Your task to perform on an android device: Show the shopping cart on newegg.com. Search for "razer thresher" on newegg.com, select the first entry, and add it to the cart. Image 0: 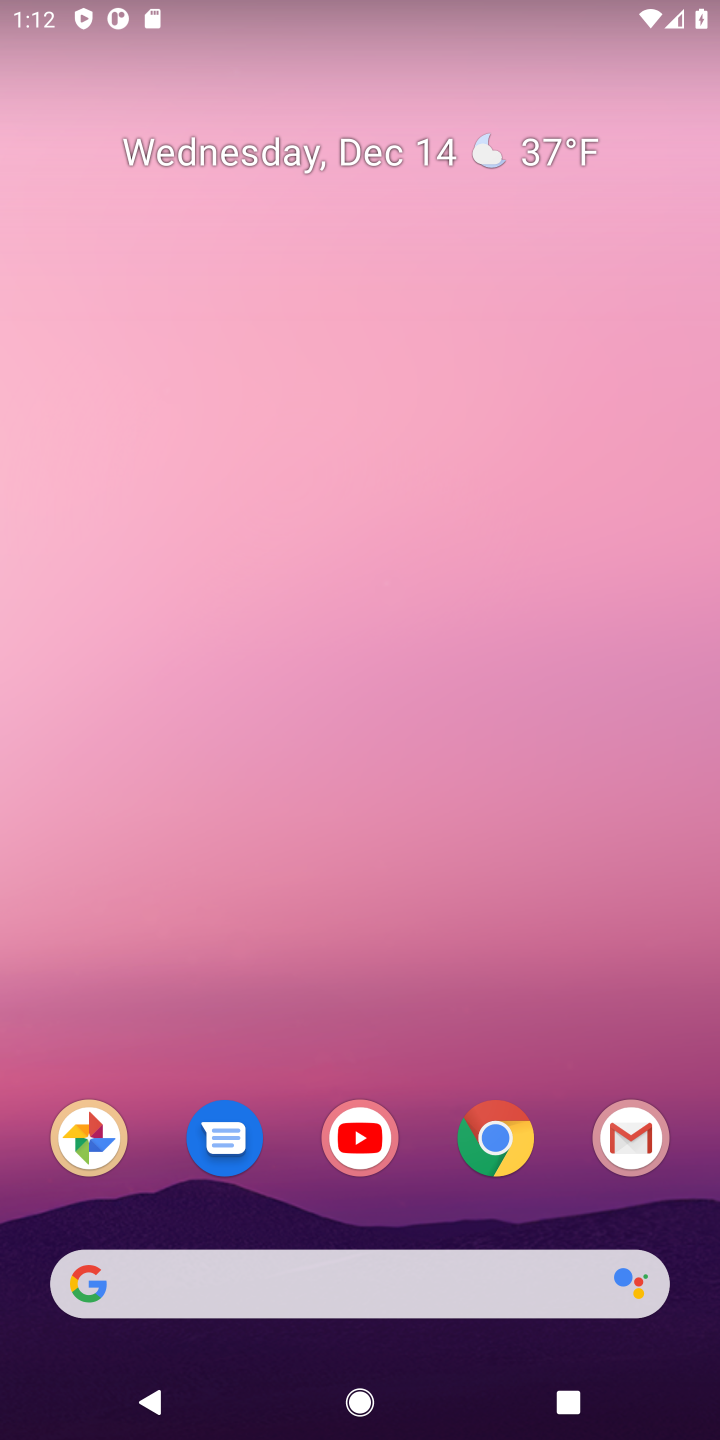
Step 0: click (484, 1125)
Your task to perform on an android device: Show the shopping cart on newegg.com. Search for "razer thresher" on newegg.com, select the first entry, and add it to the cart. Image 1: 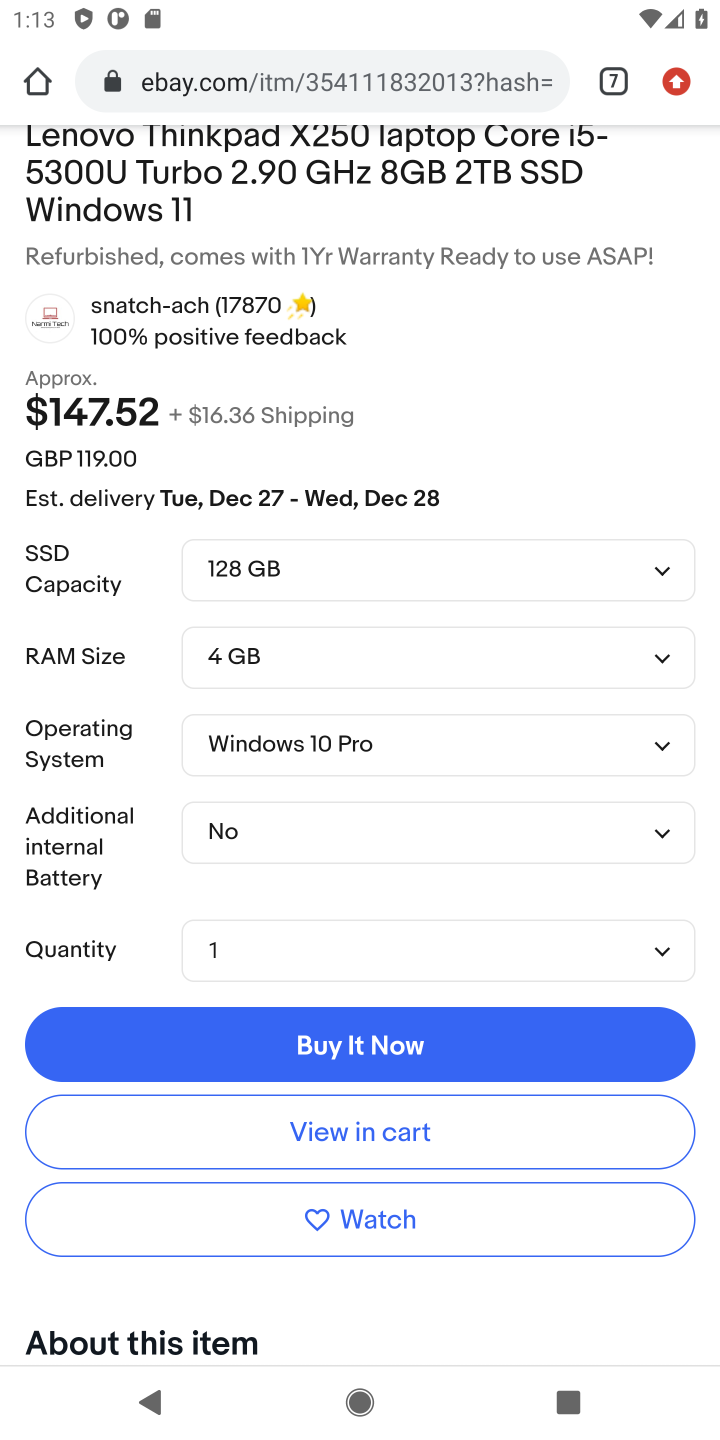
Step 1: click (608, 91)
Your task to perform on an android device: Show the shopping cart on newegg.com. Search for "razer thresher" on newegg.com, select the first entry, and add it to the cart. Image 2: 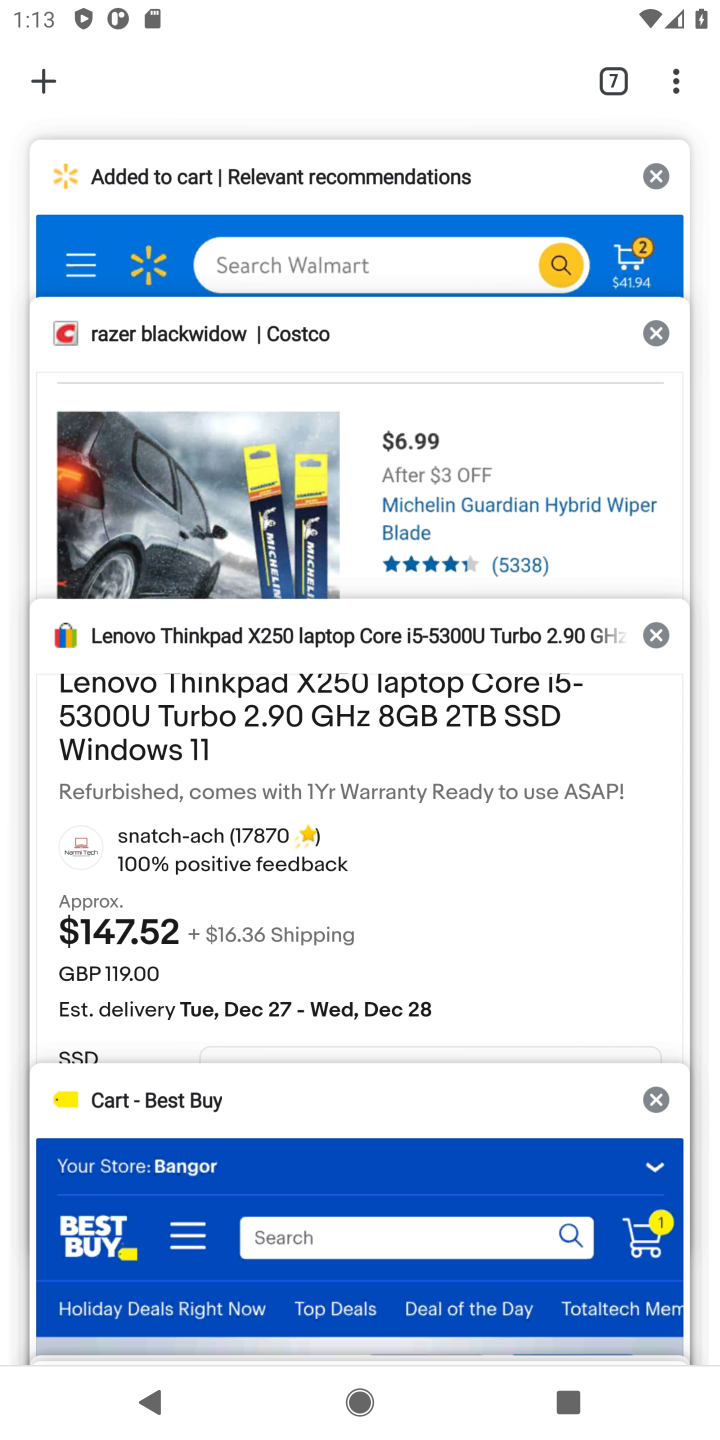
Step 2: drag from (217, 1278) to (527, 520)
Your task to perform on an android device: Show the shopping cart on newegg.com. Search for "razer thresher" on newegg.com, select the first entry, and add it to the cart. Image 3: 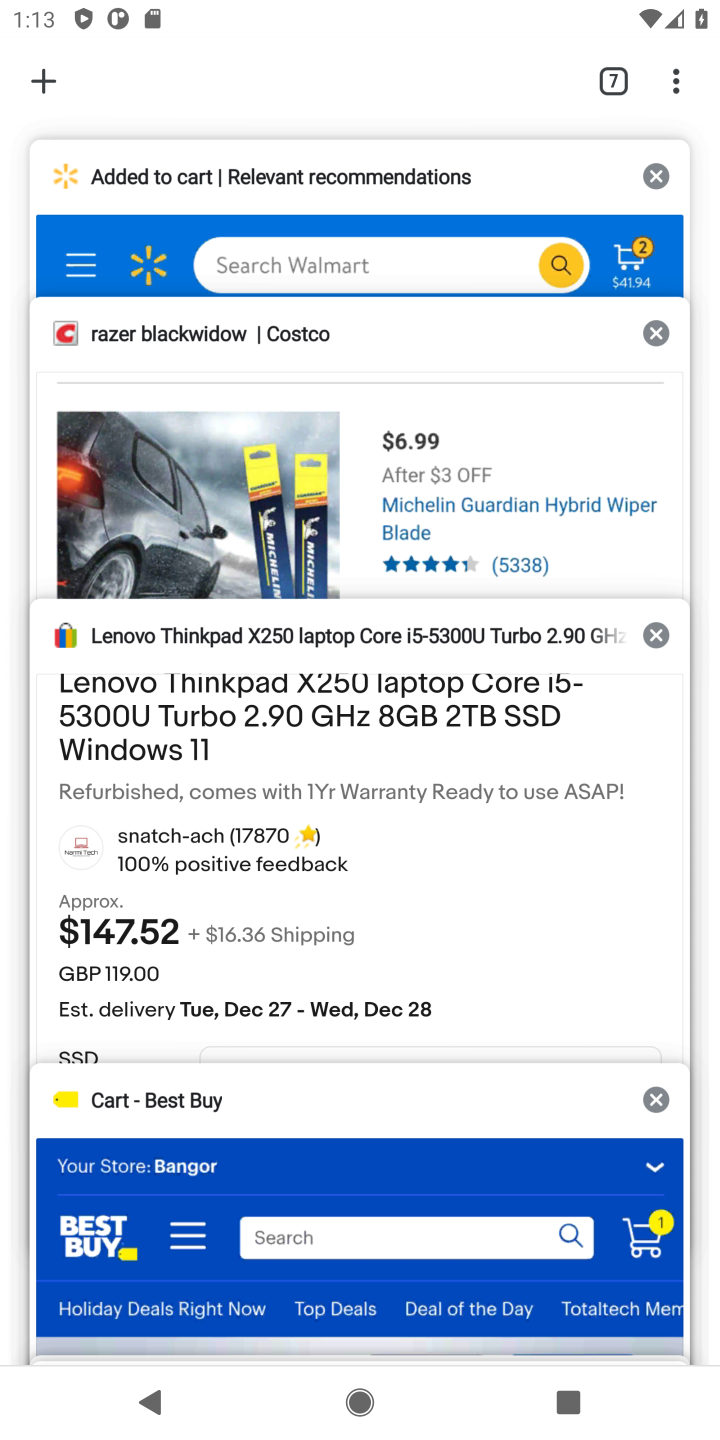
Step 3: drag from (224, 1151) to (399, 597)
Your task to perform on an android device: Show the shopping cart on newegg.com. Search for "razer thresher" on newegg.com, select the first entry, and add it to the cart. Image 4: 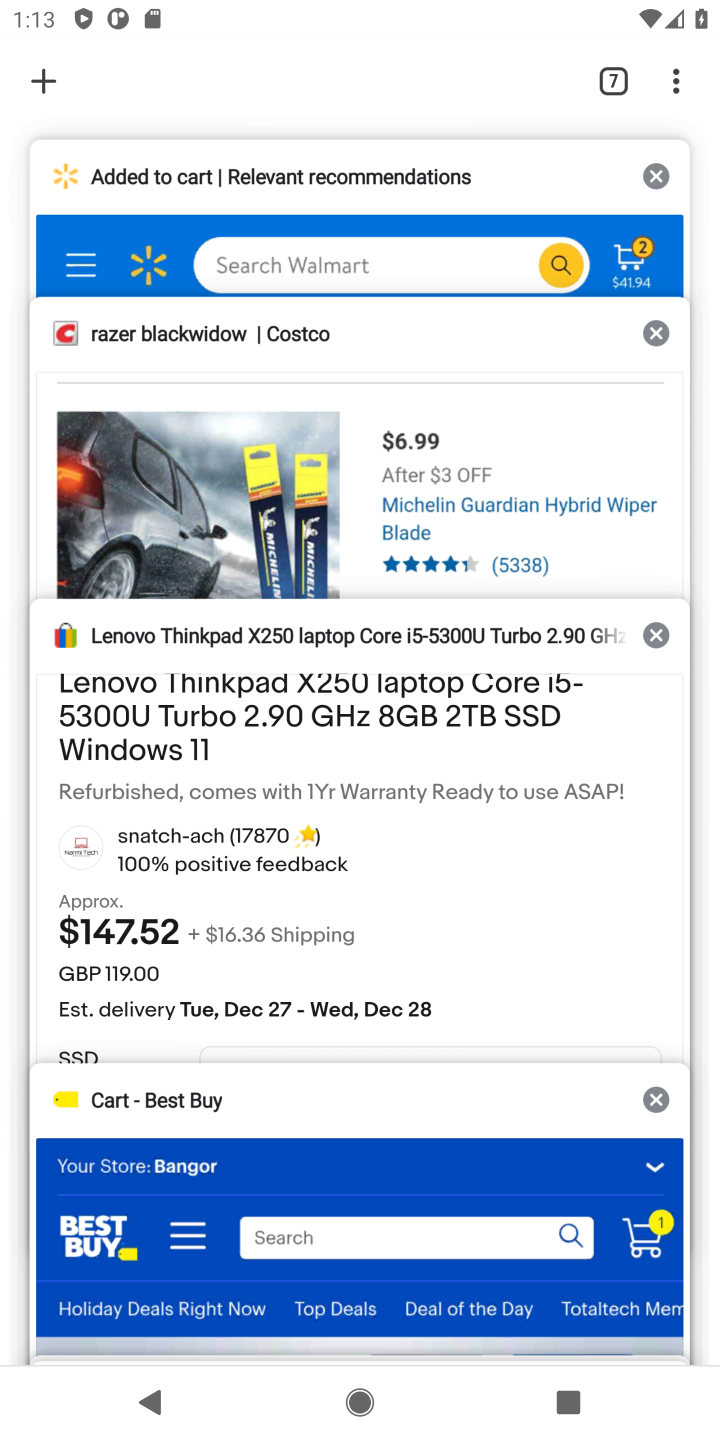
Step 4: drag from (215, 1156) to (245, 533)
Your task to perform on an android device: Show the shopping cart on newegg.com. Search for "razer thresher" on newegg.com, select the first entry, and add it to the cart. Image 5: 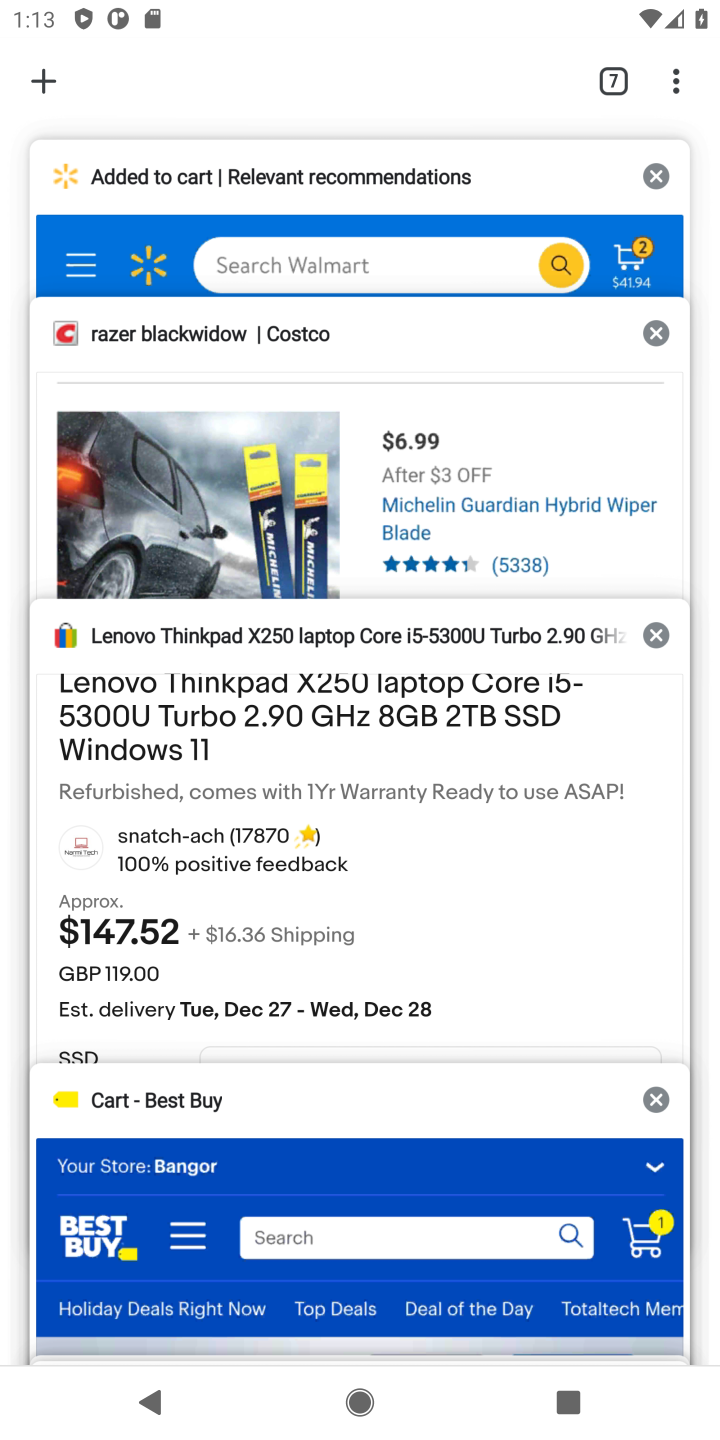
Step 5: drag from (270, 1334) to (383, 442)
Your task to perform on an android device: Show the shopping cart on newegg.com. Search for "razer thresher" on newegg.com, select the first entry, and add it to the cart. Image 6: 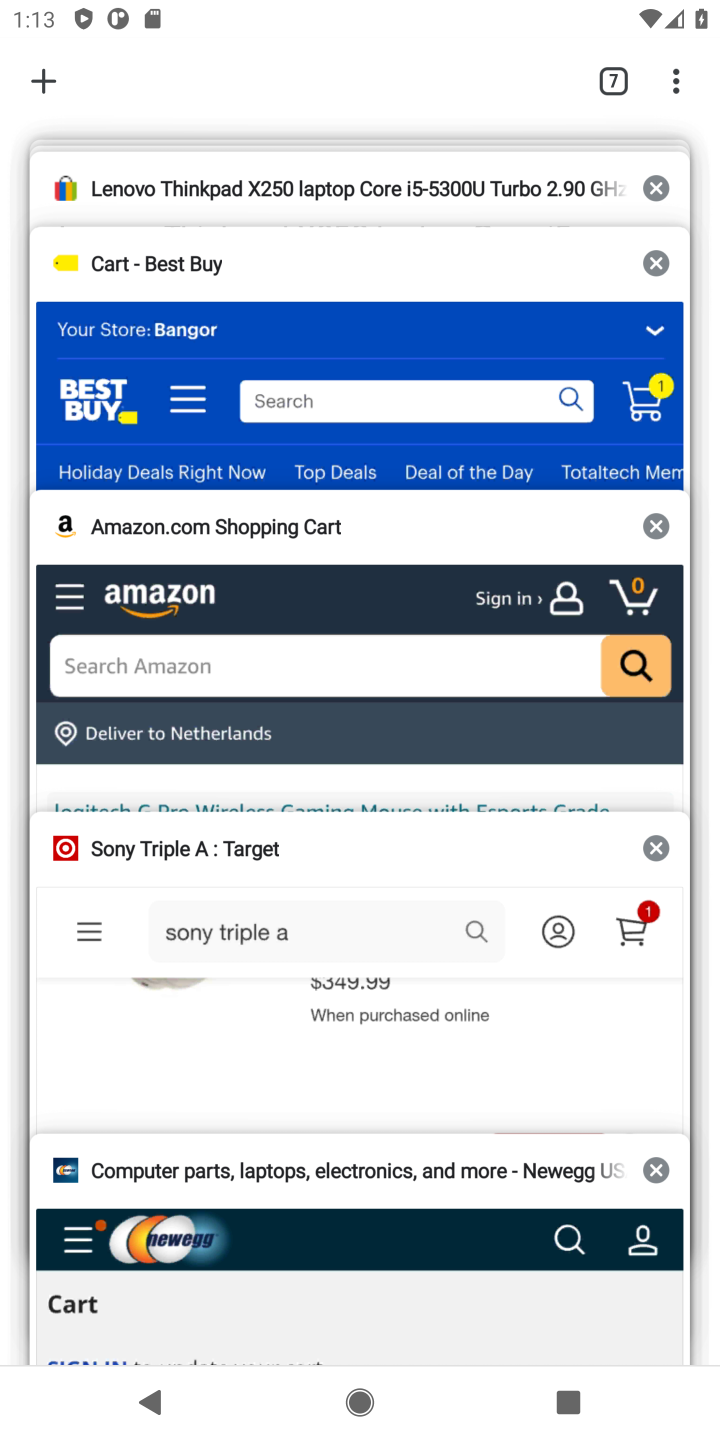
Step 6: click (363, 1224)
Your task to perform on an android device: Show the shopping cart on newegg.com. Search for "razer thresher" on newegg.com, select the first entry, and add it to the cart. Image 7: 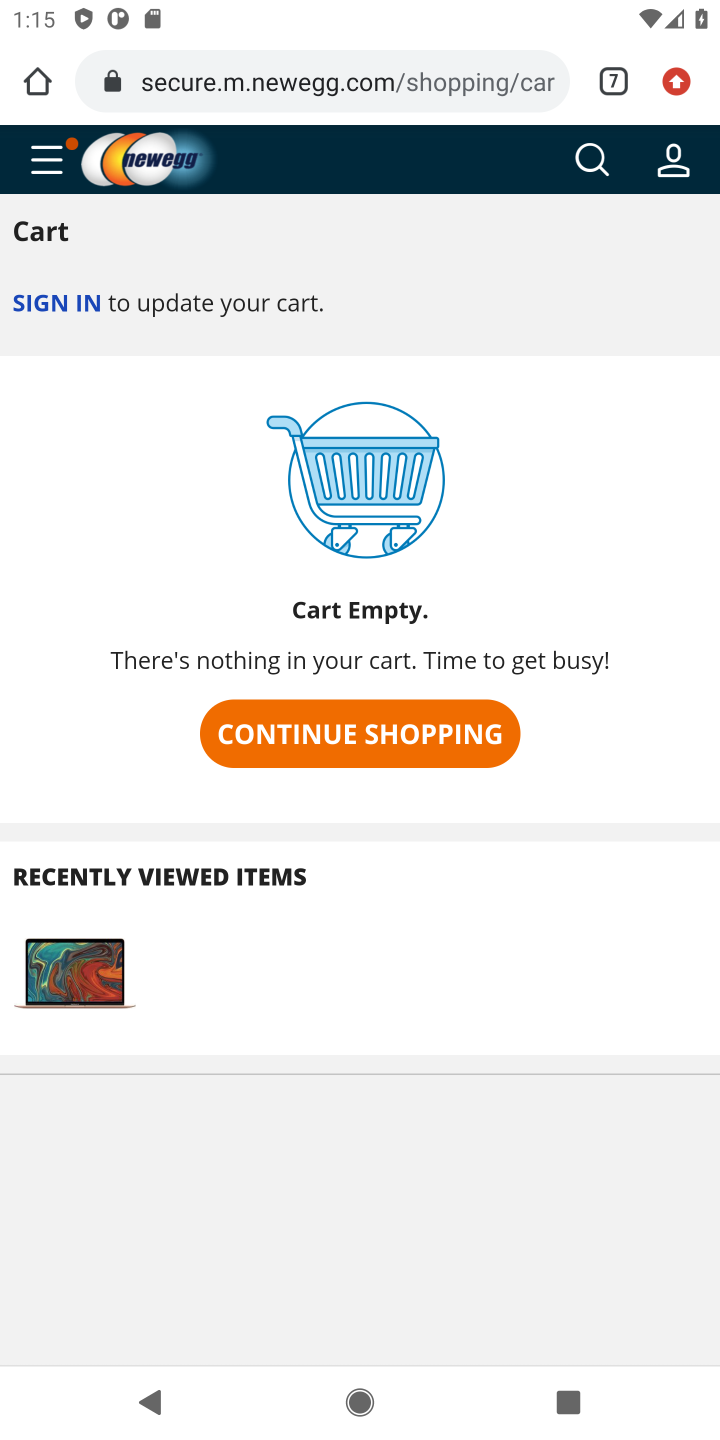
Step 7: click (575, 151)
Your task to perform on an android device: Show the shopping cart on newegg.com. Search for "razer thresher" on newegg.com, select the first entry, and add it to the cart. Image 8: 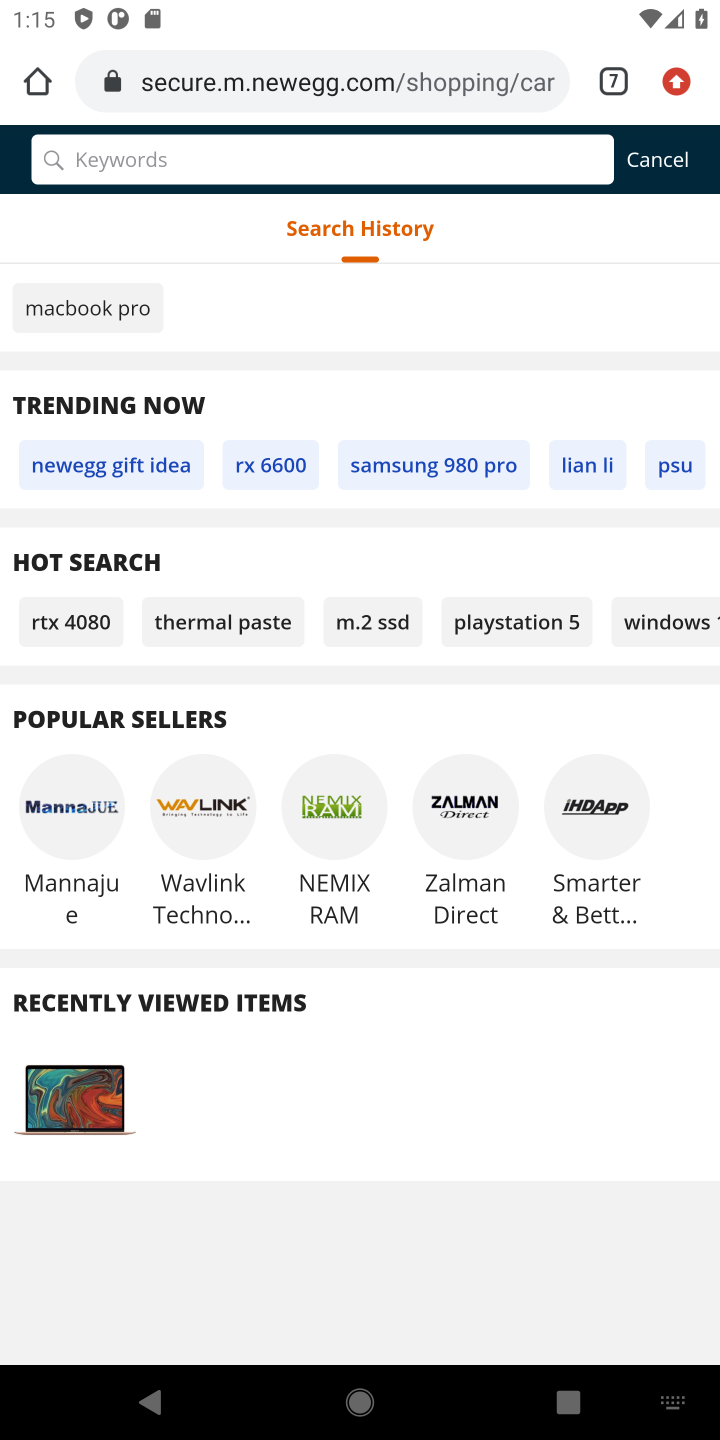
Step 8: type "razer thresher"
Your task to perform on an android device: Show the shopping cart on newegg.com. Search for "razer thresher" on newegg.com, select the first entry, and add it to the cart. Image 9: 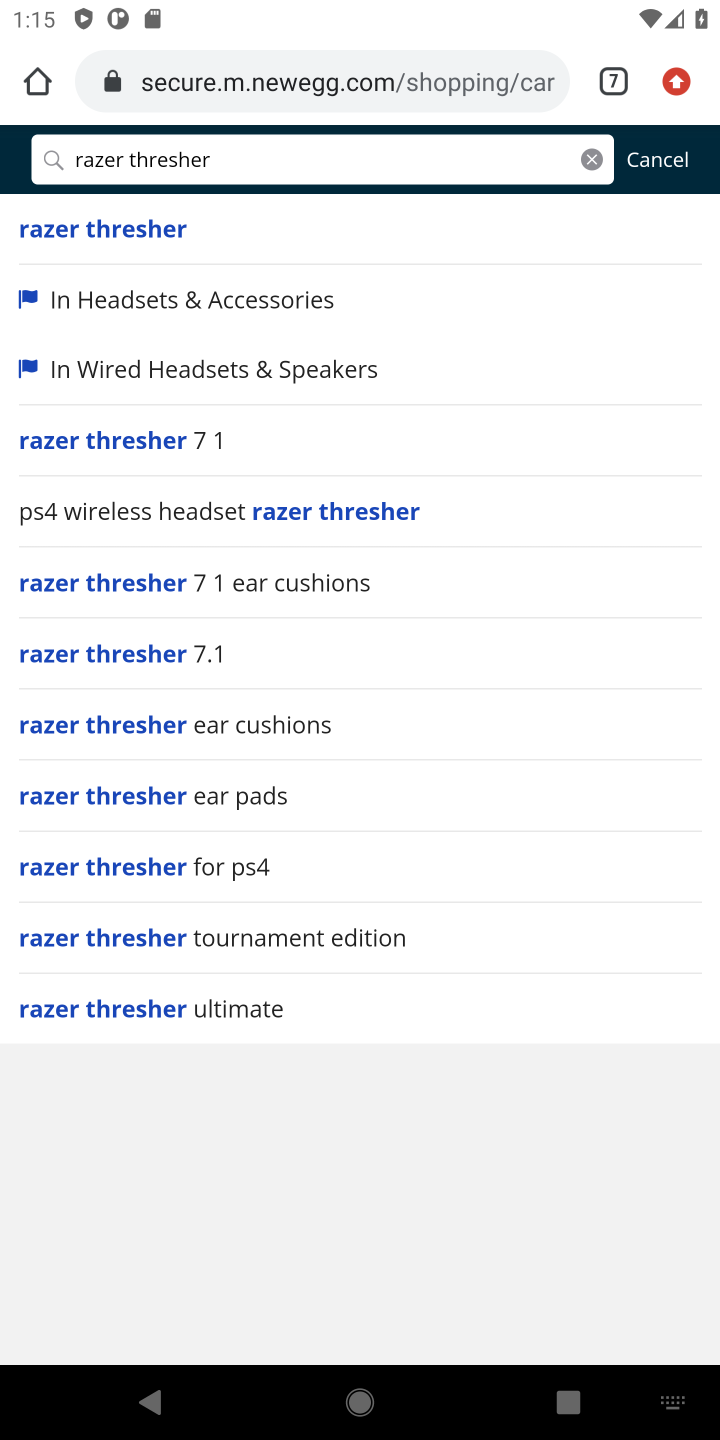
Step 9: click (120, 215)
Your task to perform on an android device: Show the shopping cart on newegg.com. Search for "razer thresher" on newegg.com, select the first entry, and add it to the cart. Image 10: 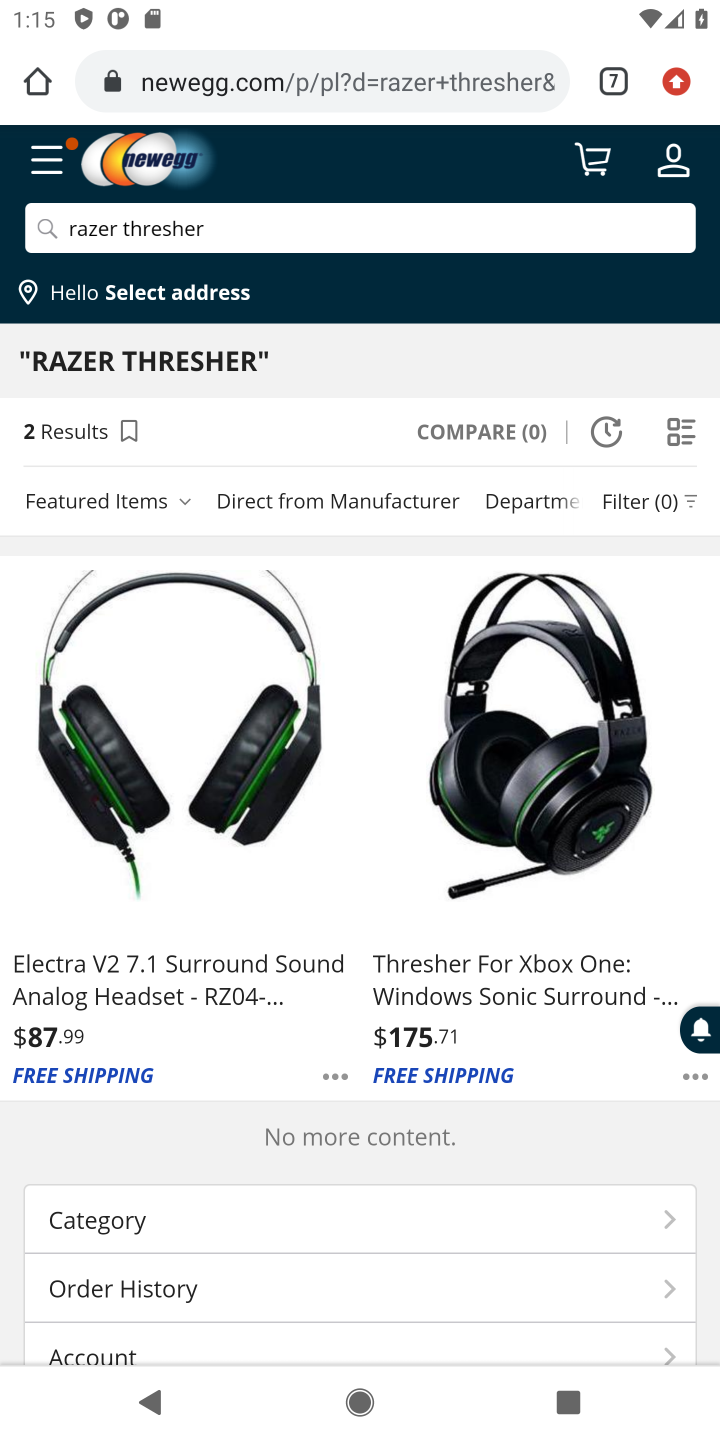
Step 10: click (437, 1000)
Your task to perform on an android device: Show the shopping cart on newegg.com. Search for "razer thresher" on newegg.com, select the first entry, and add it to the cart. Image 11: 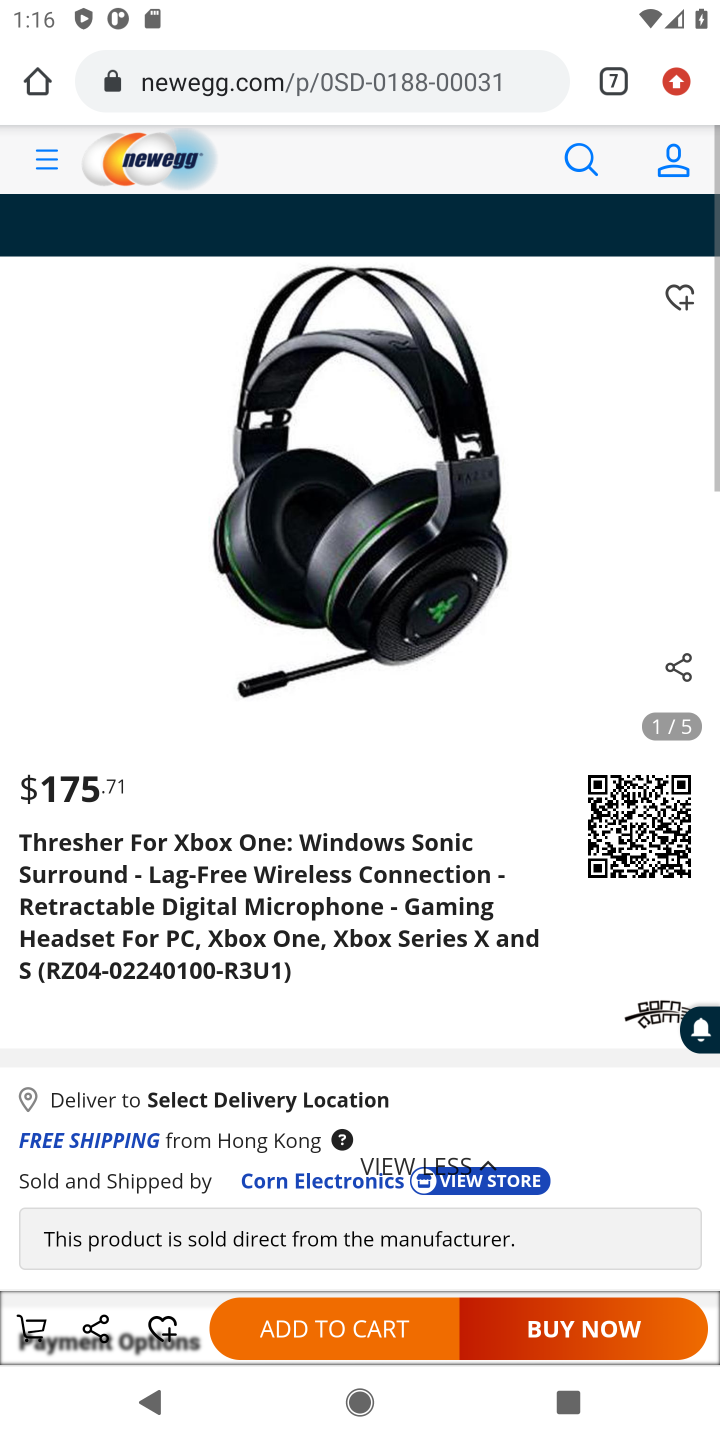
Step 11: click (354, 1324)
Your task to perform on an android device: Show the shopping cart on newegg.com. Search for "razer thresher" on newegg.com, select the first entry, and add it to the cart. Image 12: 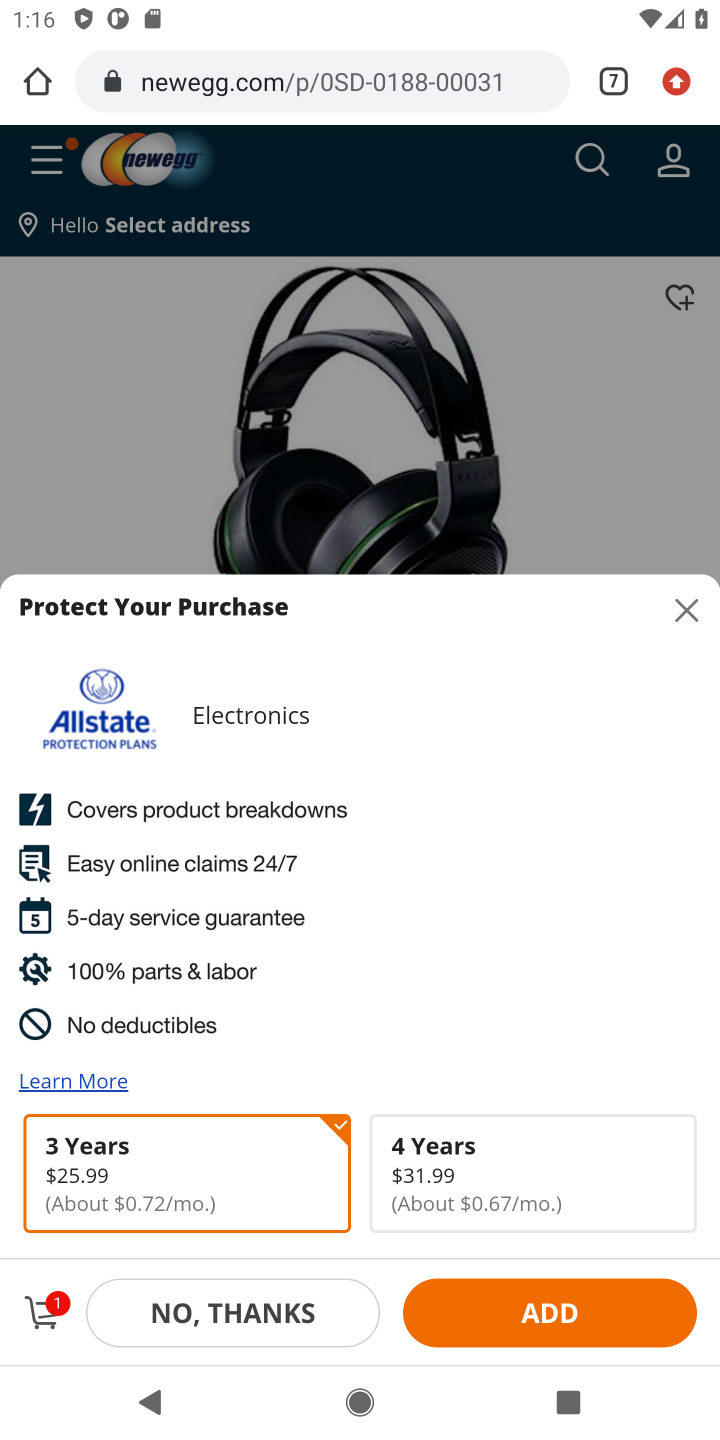
Step 12: click (684, 598)
Your task to perform on an android device: Show the shopping cart on newegg.com. Search for "razer thresher" on newegg.com, select the first entry, and add it to the cart. Image 13: 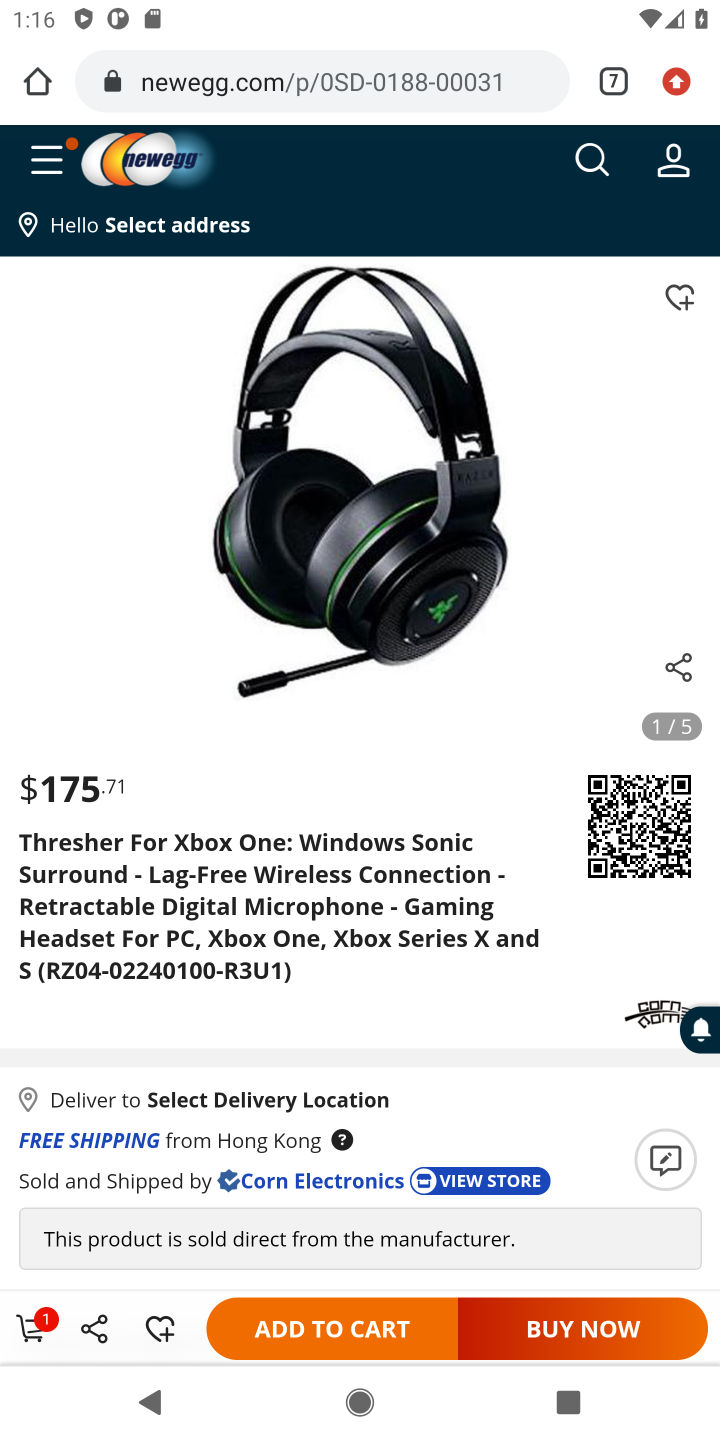
Step 13: task complete